Your task to perform on an android device: delete browsing data in the chrome app Image 0: 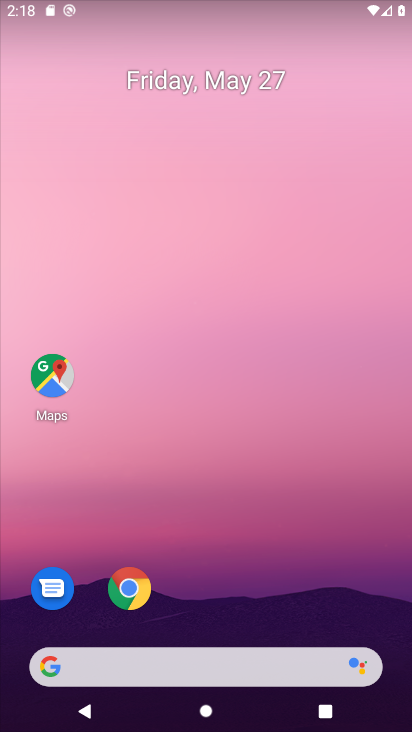
Step 0: click (122, 584)
Your task to perform on an android device: delete browsing data in the chrome app Image 1: 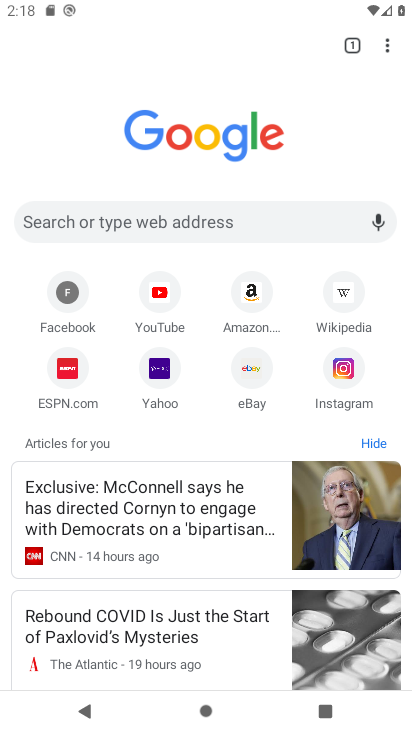
Step 1: click (386, 36)
Your task to perform on an android device: delete browsing data in the chrome app Image 2: 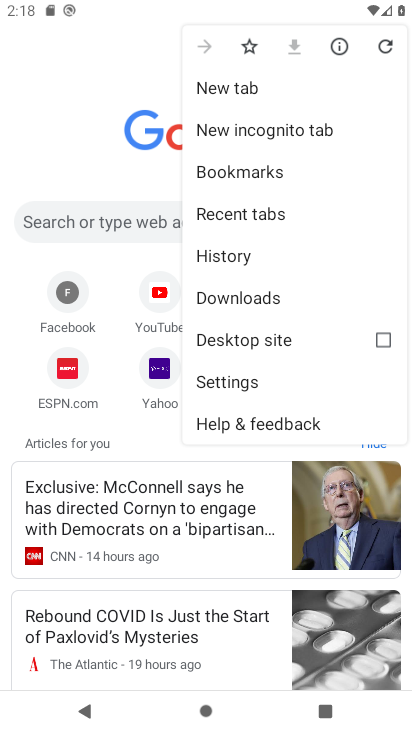
Step 2: click (244, 249)
Your task to perform on an android device: delete browsing data in the chrome app Image 3: 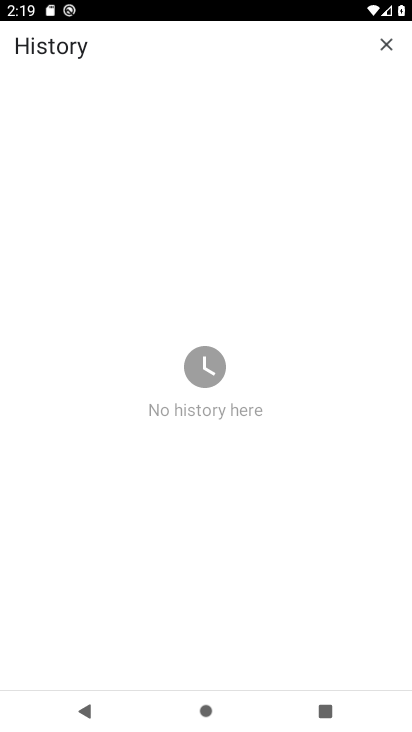
Step 3: task complete